Your task to perform on an android device: toggle notifications settings in the gmail app Image 0: 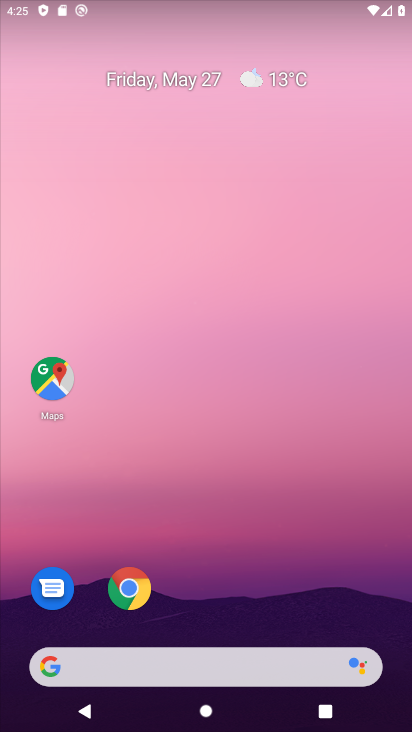
Step 0: drag from (227, 568) to (255, 133)
Your task to perform on an android device: toggle notifications settings in the gmail app Image 1: 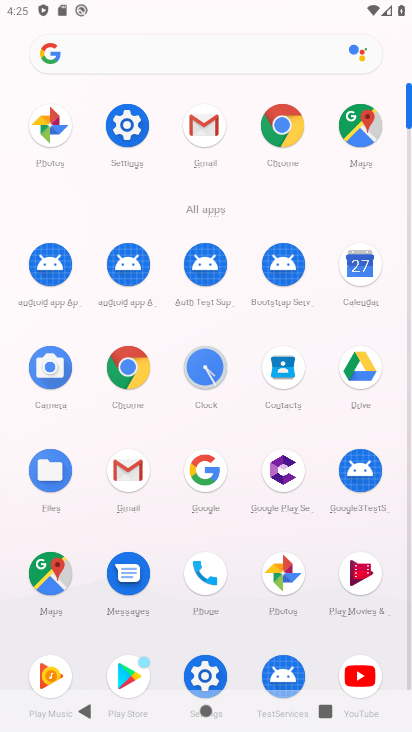
Step 1: click (205, 125)
Your task to perform on an android device: toggle notifications settings in the gmail app Image 2: 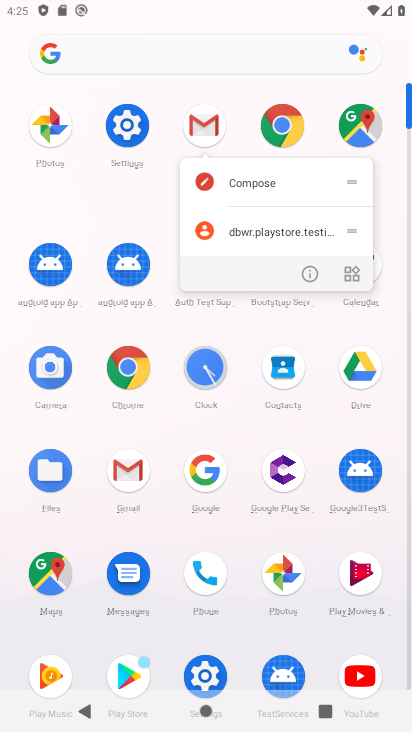
Step 2: click (307, 272)
Your task to perform on an android device: toggle notifications settings in the gmail app Image 3: 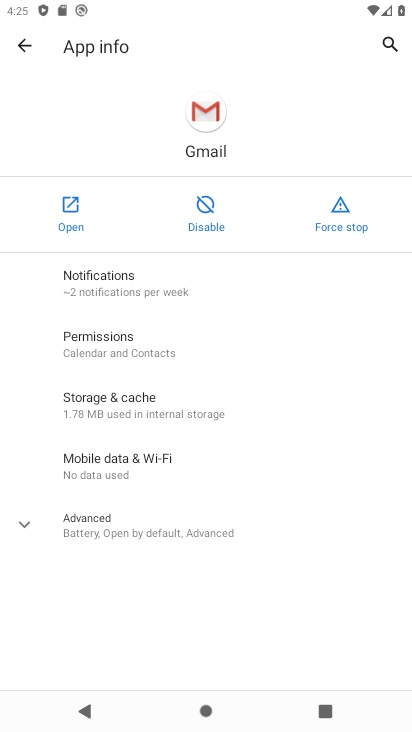
Step 3: click (126, 285)
Your task to perform on an android device: toggle notifications settings in the gmail app Image 4: 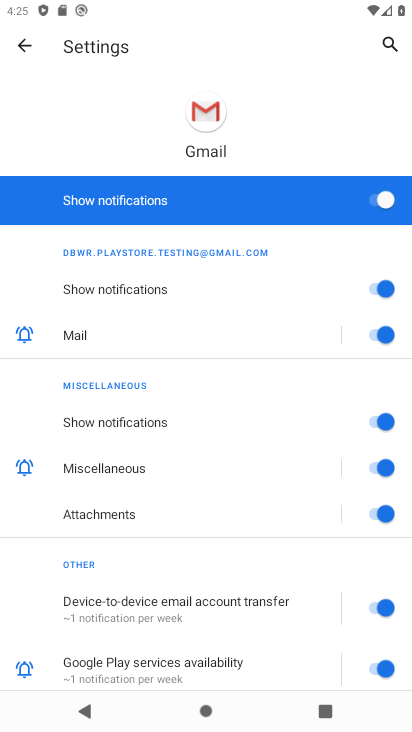
Step 4: click (385, 202)
Your task to perform on an android device: toggle notifications settings in the gmail app Image 5: 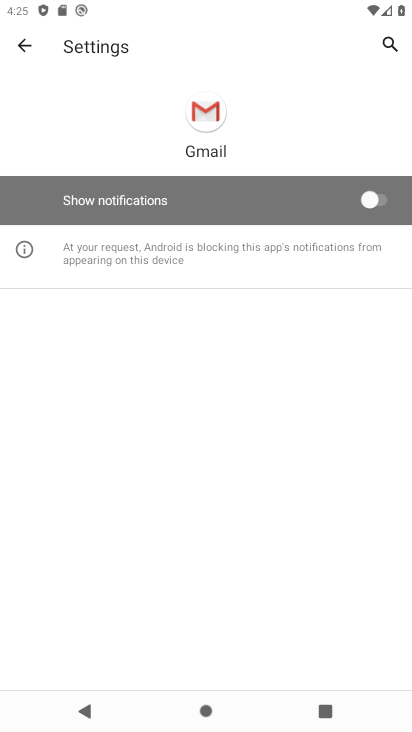
Step 5: task complete